Your task to perform on an android device: Empty the shopping cart on costco. Search for "razer nari" on costco, select the first entry, and add it to the cart. Image 0: 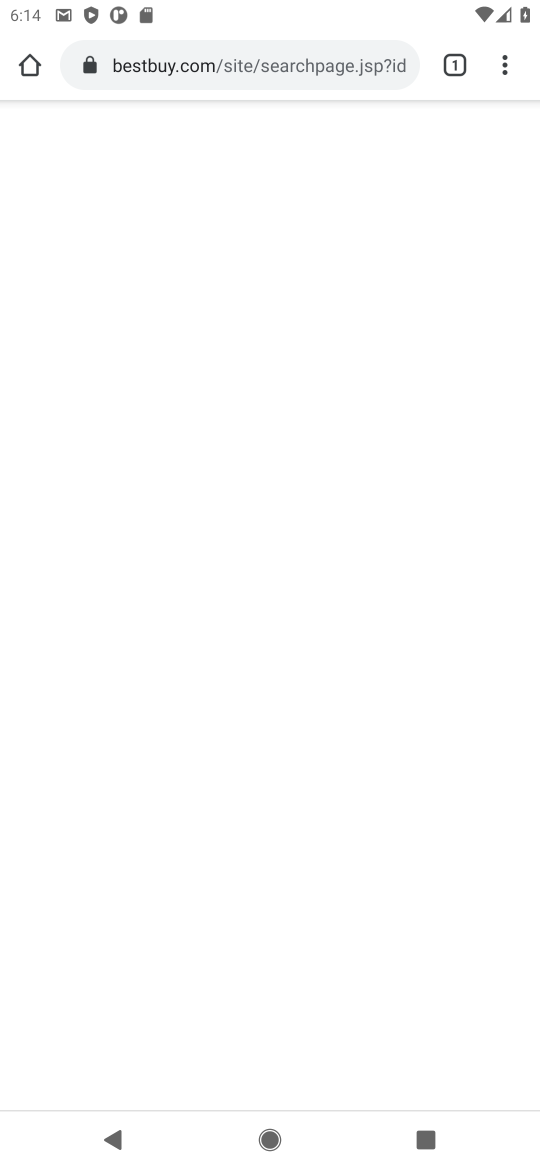
Step 0: click (364, 926)
Your task to perform on an android device: Empty the shopping cart on costco. Search for "razer nari" on costco, select the first entry, and add it to the cart. Image 1: 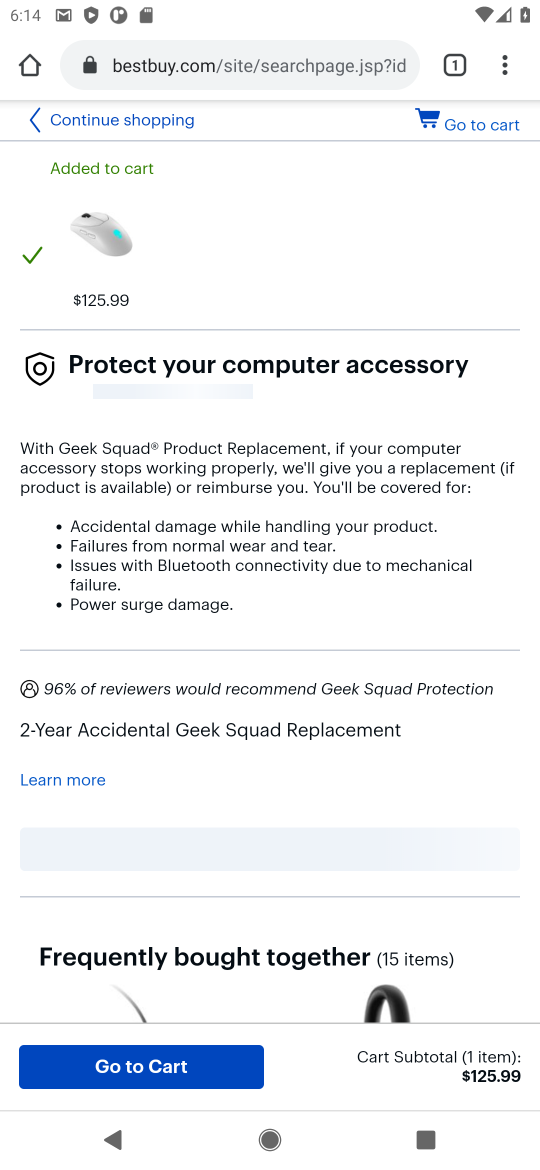
Step 1: click (210, 61)
Your task to perform on an android device: Empty the shopping cart on costco. Search for "razer nari" on costco, select the first entry, and add it to the cart. Image 2: 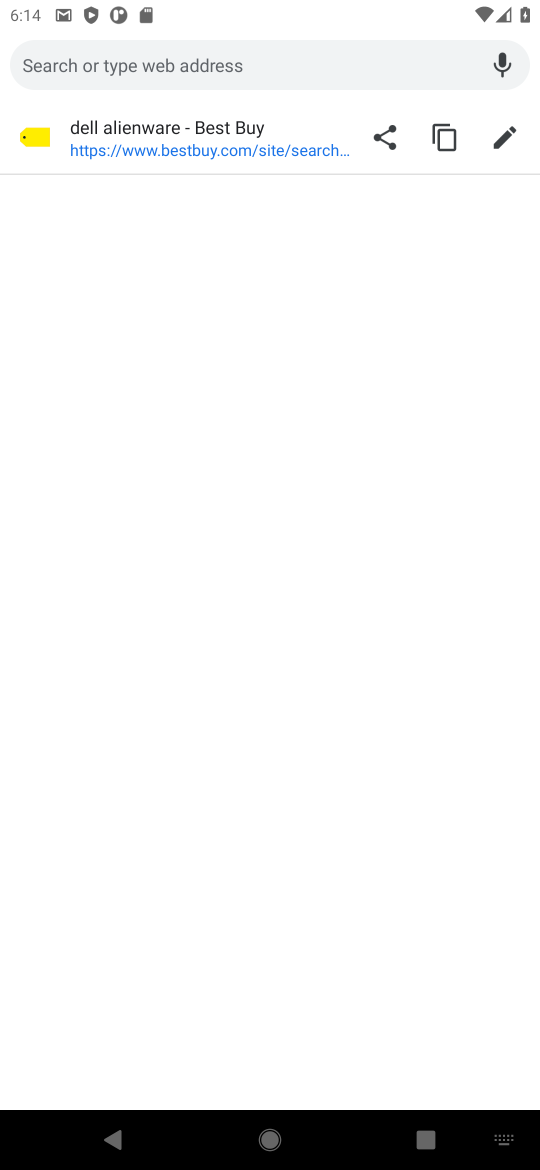
Step 2: type "costco.com"
Your task to perform on an android device: Empty the shopping cart on costco. Search for "razer nari" on costco, select the first entry, and add it to the cart. Image 3: 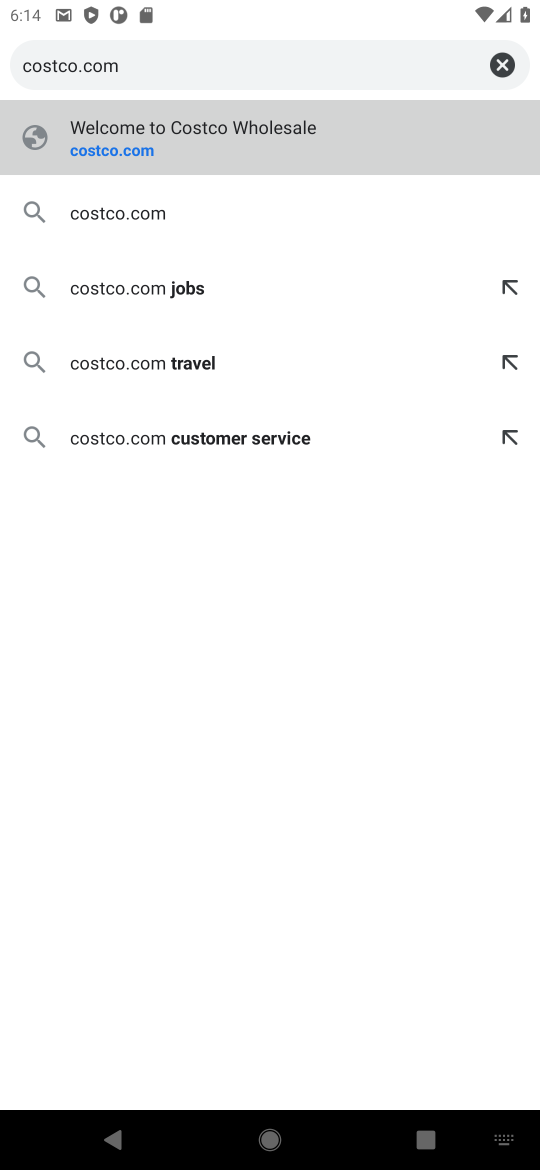
Step 3: press enter
Your task to perform on an android device: Empty the shopping cart on costco. Search for "razer nari" on costco, select the first entry, and add it to the cart. Image 4: 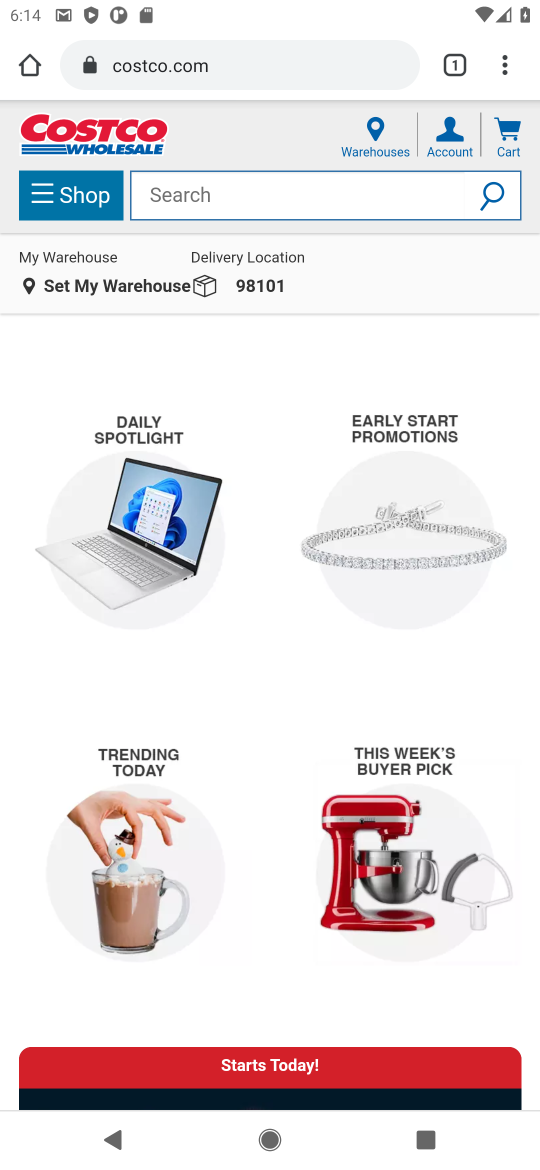
Step 4: click (507, 130)
Your task to perform on an android device: Empty the shopping cart on costco. Search for "razer nari" on costco, select the first entry, and add it to the cart. Image 5: 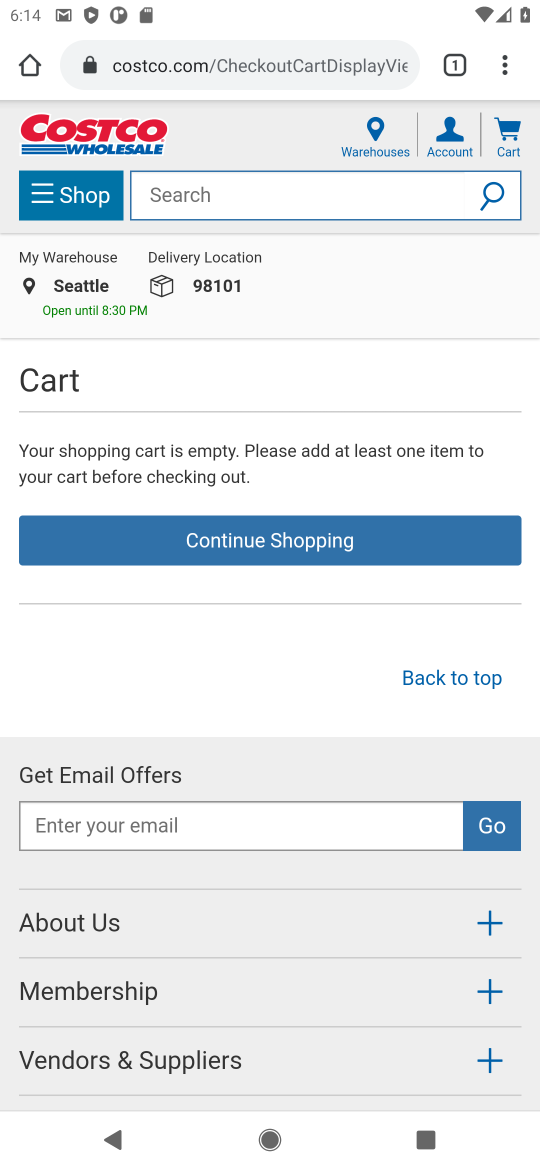
Step 5: click (280, 547)
Your task to perform on an android device: Empty the shopping cart on costco. Search for "razer nari" on costco, select the first entry, and add it to the cart. Image 6: 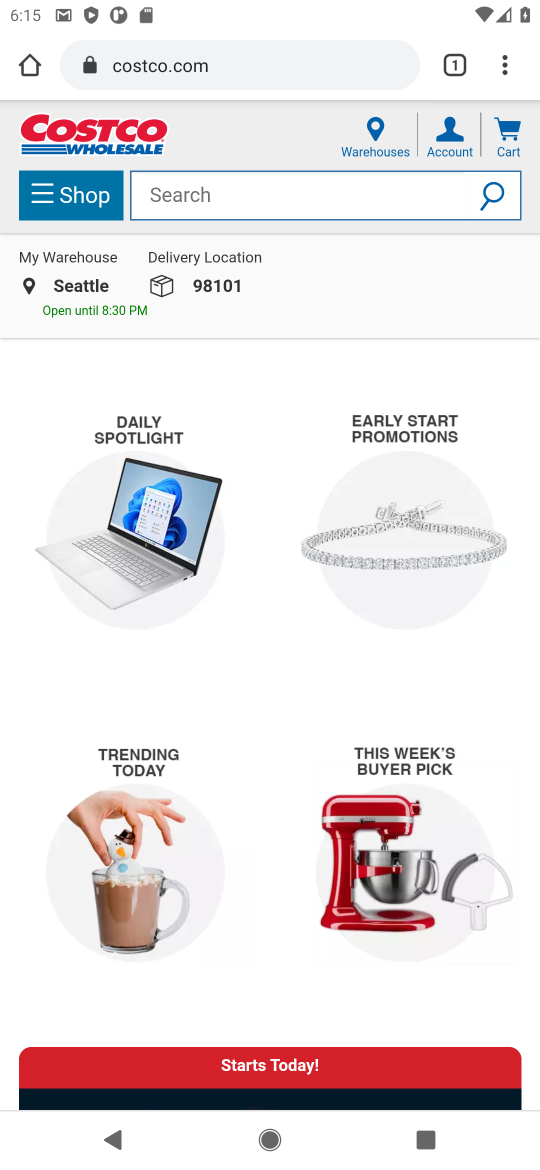
Step 6: click (212, 208)
Your task to perform on an android device: Empty the shopping cart on costco. Search for "razer nari" on costco, select the first entry, and add it to the cart. Image 7: 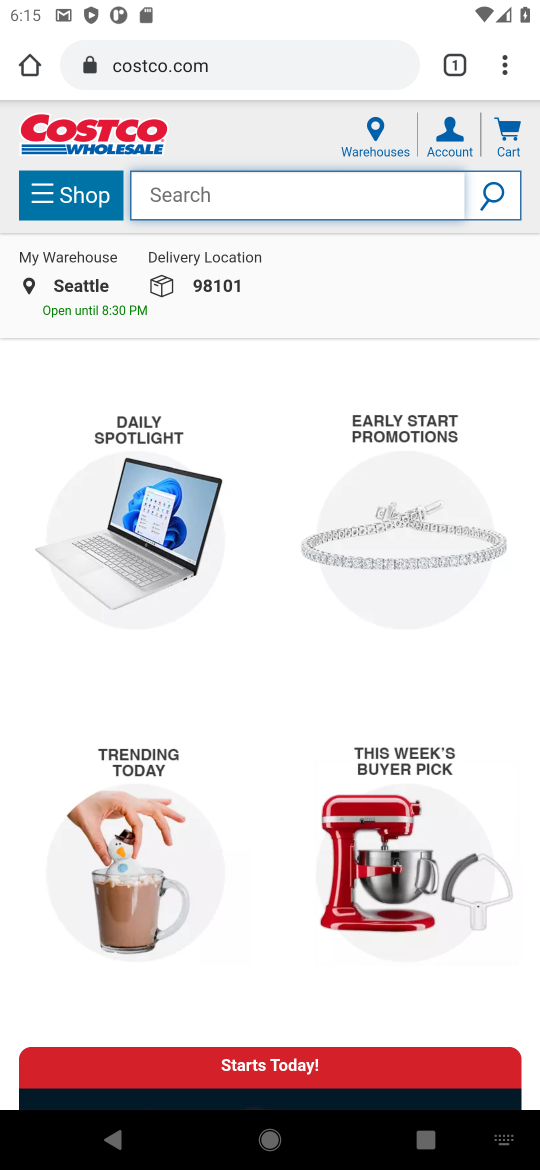
Step 7: type "razer nari"
Your task to perform on an android device: Empty the shopping cart on costco. Search for "razer nari" on costco, select the first entry, and add it to the cart. Image 8: 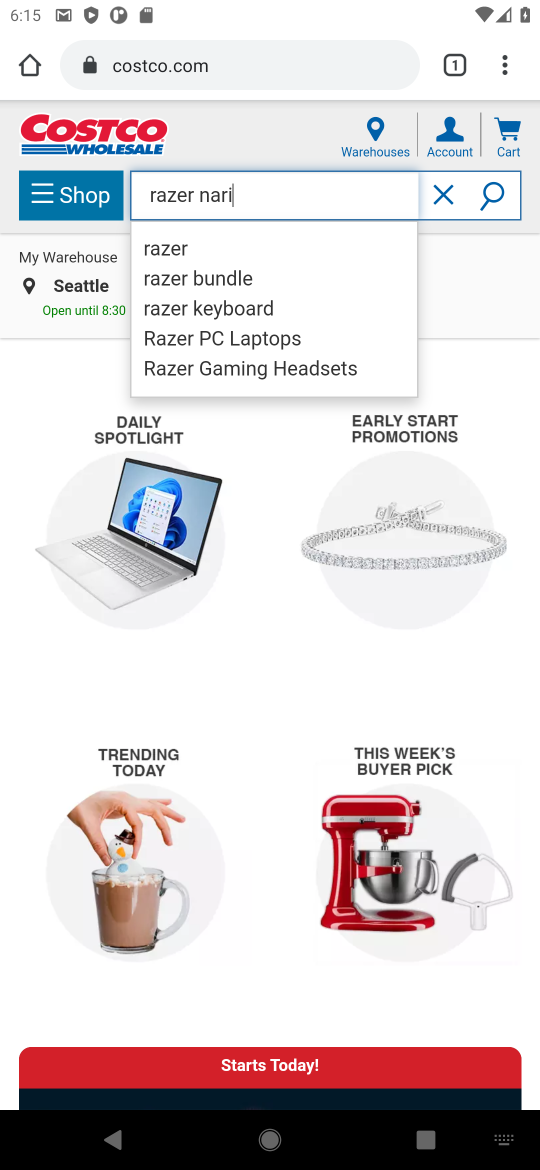
Step 8: press enter
Your task to perform on an android device: Empty the shopping cart on costco. Search for "razer nari" on costco, select the first entry, and add it to the cart. Image 9: 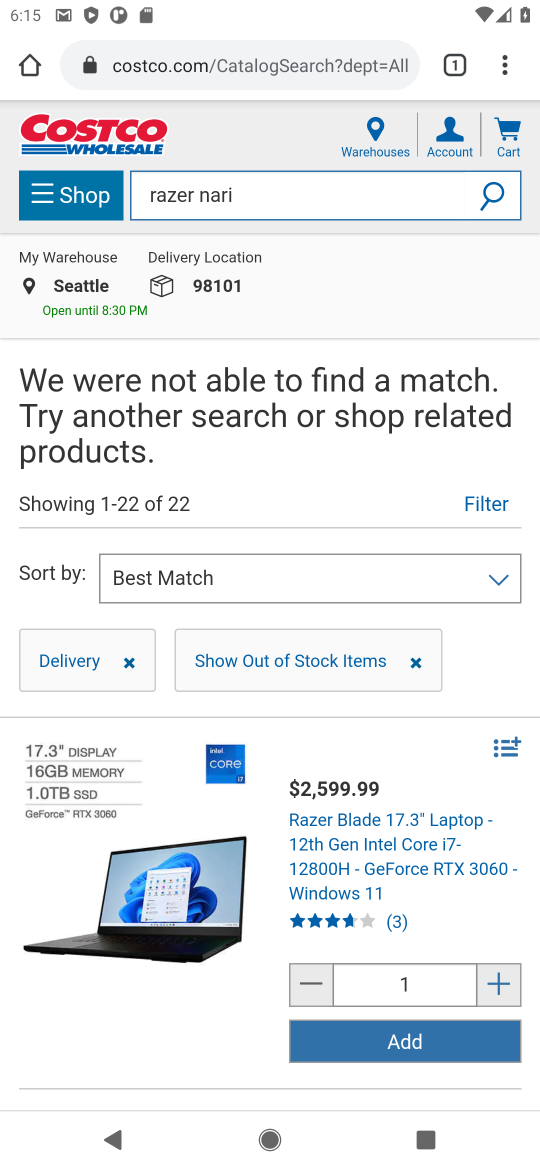
Step 9: click (195, 908)
Your task to perform on an android device: Empty the shopping cart on costco. Search for "razer nari" on costco, select the first entry, and add it to the cart. Image 10: 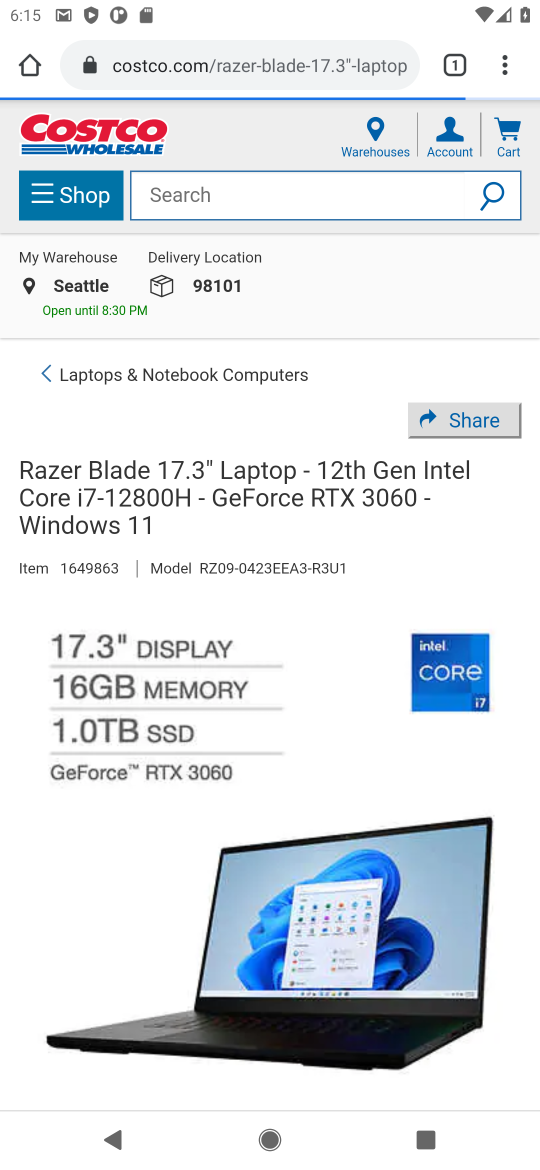
Step 10: drag from (369, 780) to (297, 136)
Your task to perform on an android device: Empty the shopping cart on costco. Search for "razer nari" on costco, select the first entry, and add it to the cart. Image 11: 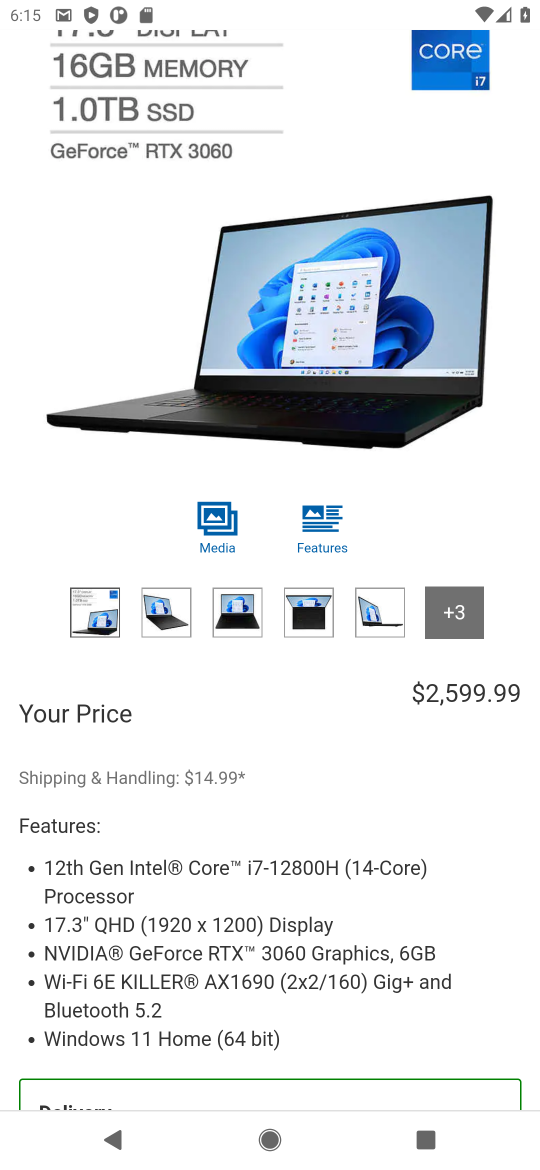
Step 11: drag from (516, 913) to (404, 372)
Your task to perform on an android device: Empty the shopping cart on costco. Search for "razer nari" on costco, select the first entry, and add it to the cart. Image 12: 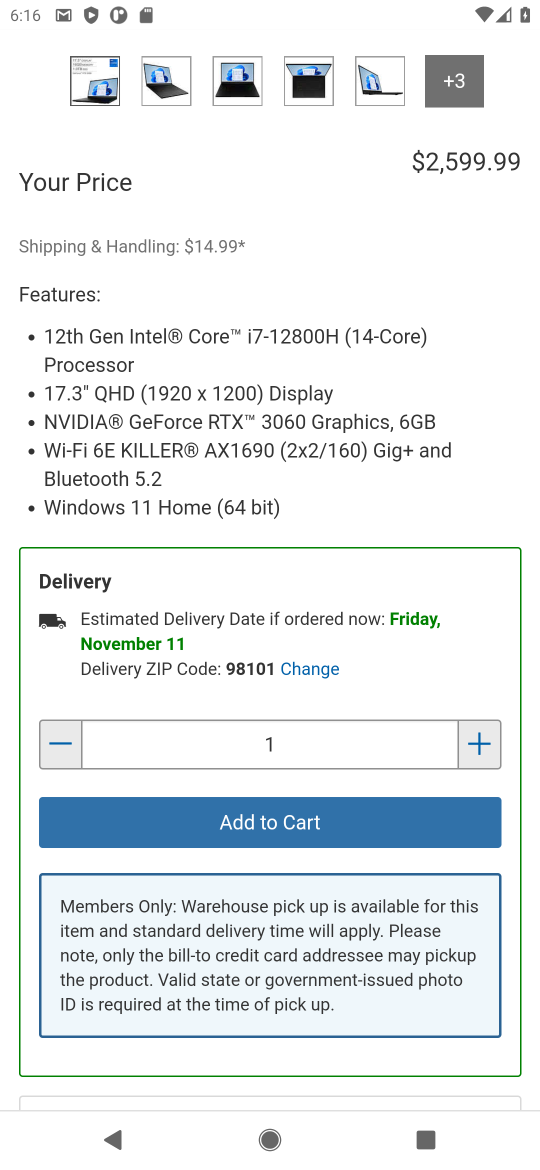
Step 12: click (152, 820)
Your task to perform on an android device: Empty the shopping cart on costco. Search for "razer nari" on costco, select the first entry, and add it to the cart. Image 13: 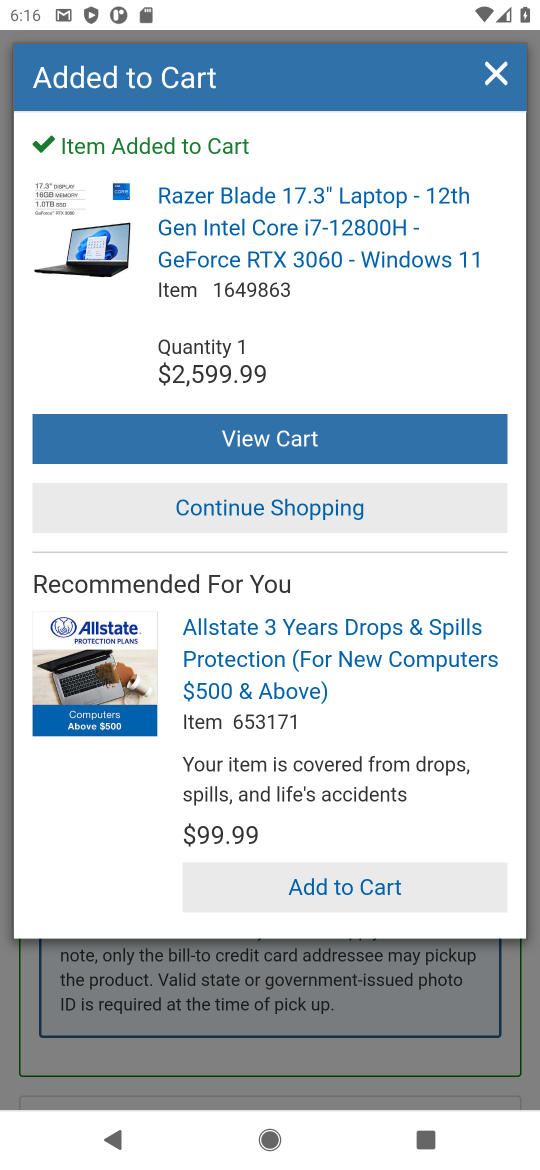
Step 13: task complete